Your task to perform on an android device: check the backup settings in the google photos Image 0: 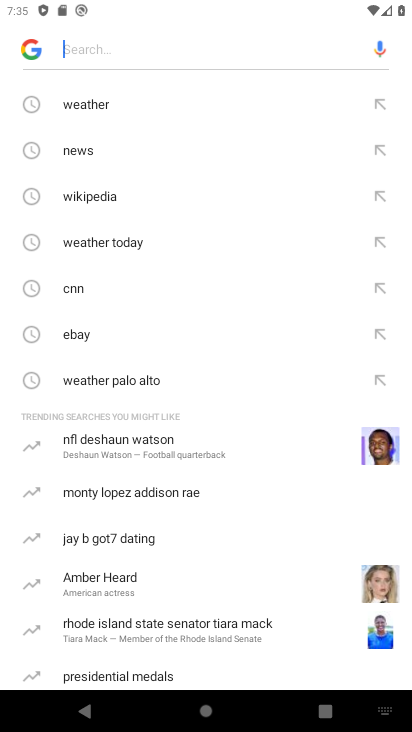
Step 0: press home button
Your task to perform on an android device: check the backup settings in the google photos Image 1: 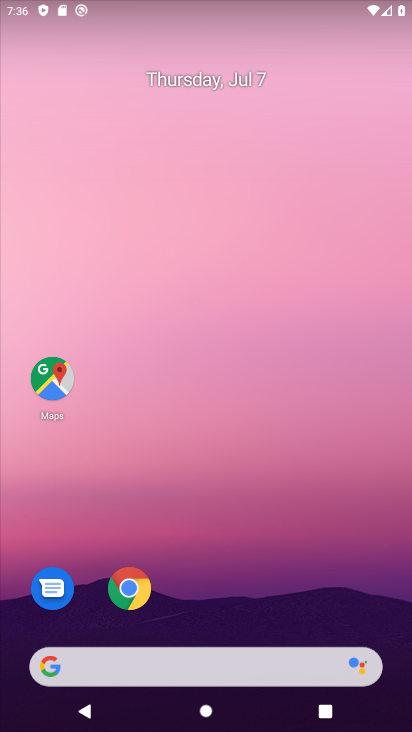
Step 1: drag from (11, 691) to (289, 4)
Your task to perform on an android device: check the backup settings in the google photos Image 2: 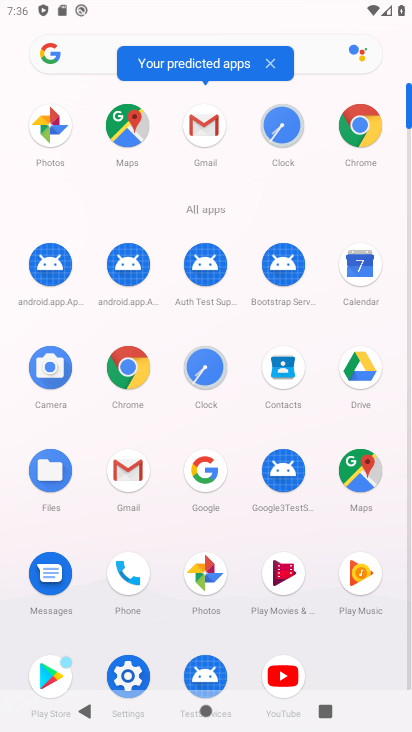
Step 2: click (202, 584)
Your task to perform on an android device: check the backup settings in the google photos Image 3: 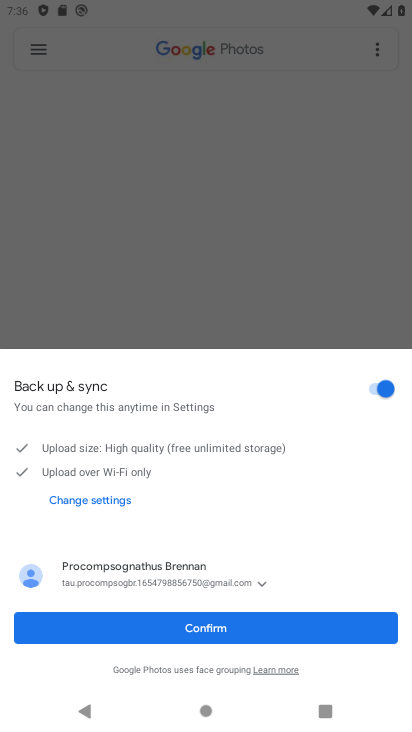
Step 3: click (210, 633)
Your task to perform on an android device: check the backup settings in the google photos Image 4: 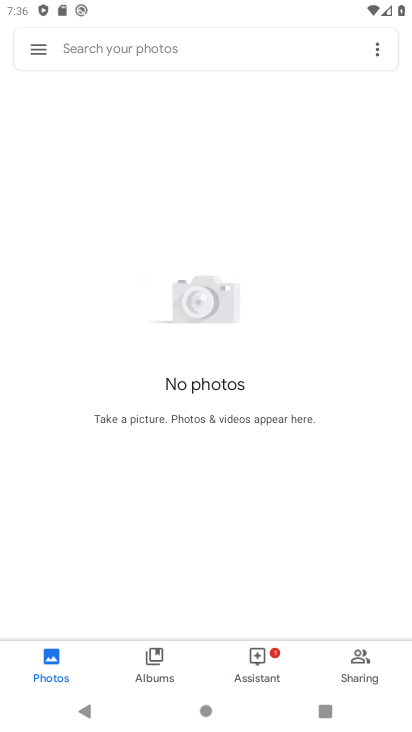
Step 4: click (29, 53)
Your task to perform on an android device: check the backup settings in the google photos Image 5: 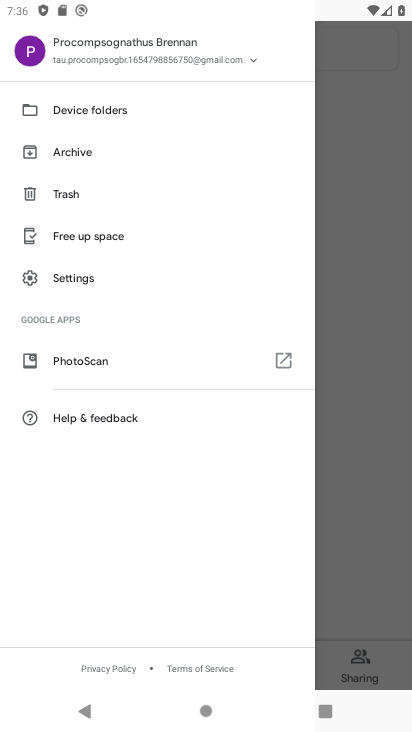
Step 5: click (83, 282)
Your task to perform on an android device: check the backup settings in the google photos Image 6: 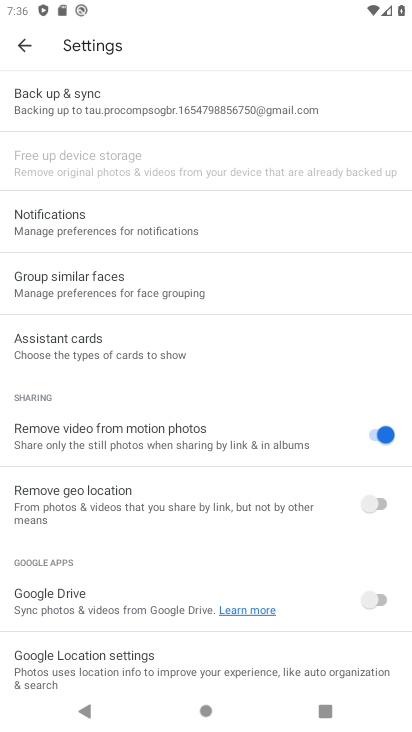
Step 6: click (57, 85)
Your task to perform on an android device: check the backup settings in the google photos Image 7: 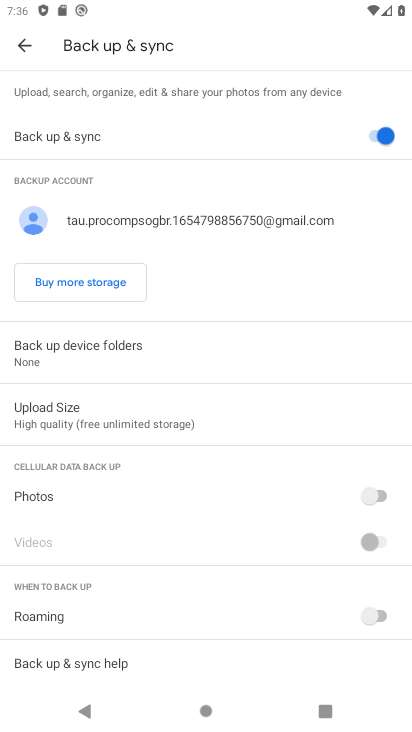
Step 7: task complete